Your task to perform on an android device: What's the weather today? Image 0: 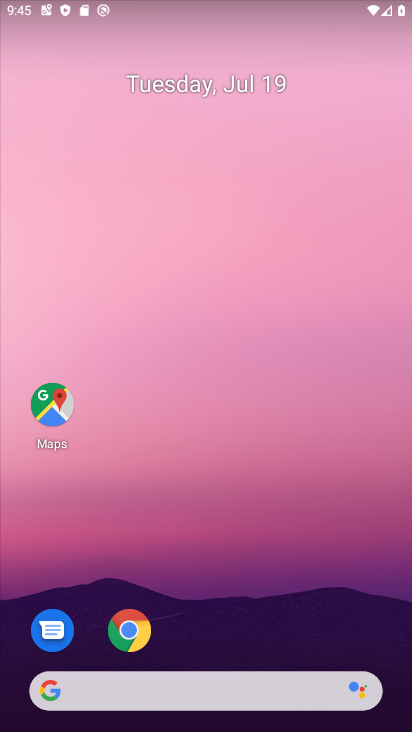
Step 0: drag from (207, 637) to (194, 109)
Your task to perform on an android device: What's the weather today? Image 1: 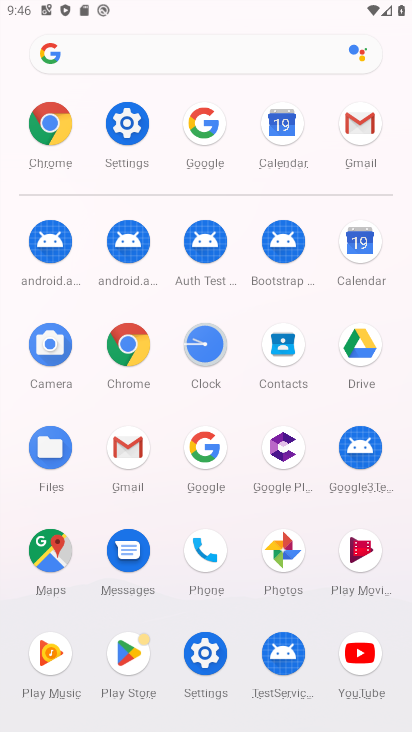
Step 1: click (203, 448)
Your task to perform on an android device: What's the weather today? Image 2: 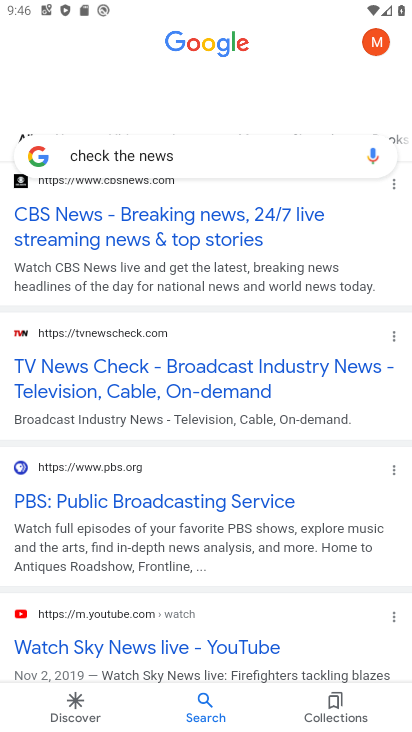
Step 2: click (227, 161)
Your task to perform on an android device: What's the weather today? Image 3: 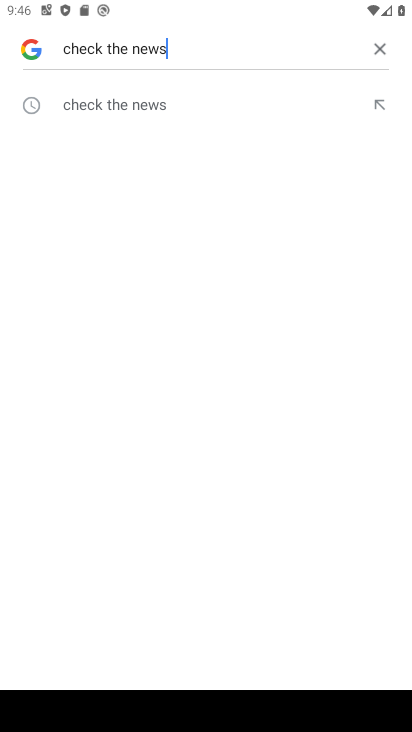
Step 3: click (378, 46)
Your task to perform on an android device: What's the weather today? Image 4: 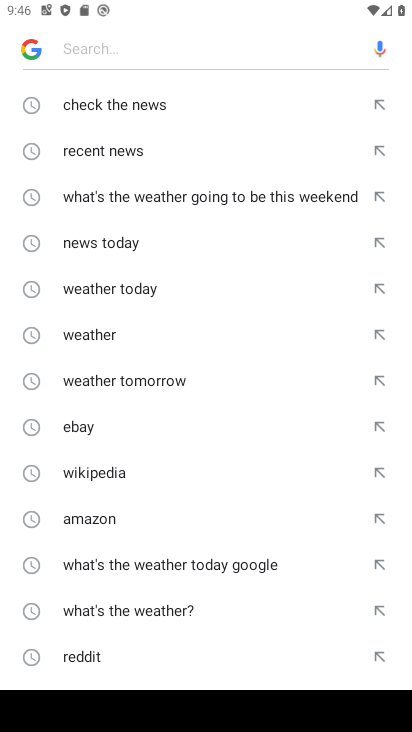
Step 4: type "whats the weather today"
Your task to perform on an android device: What's the weather today? Image 5: 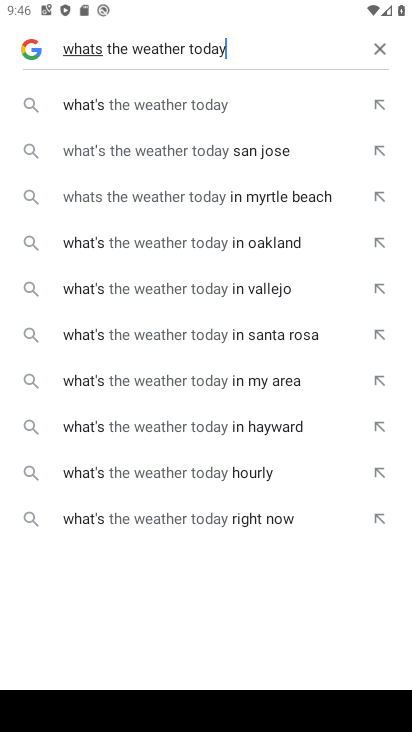
Step 5: click (156, 105)
Your task to perform on an android device: What's the weather today? Image 6: 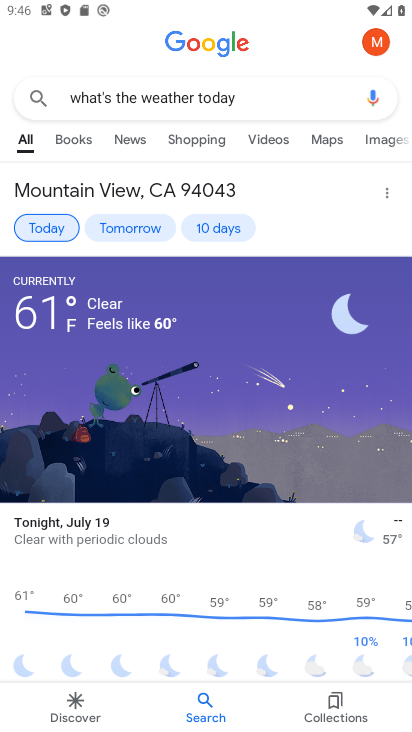
Step 6: task complete